Your task to perform on an android device: Go to eBay Image 0: 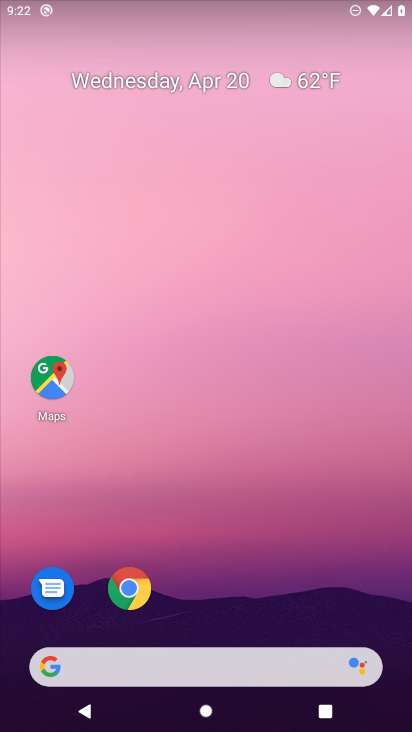
Step 0: drag from (220, 614) to (233, 25)
Your task to perform on an android device: Go to eBay Image 1: 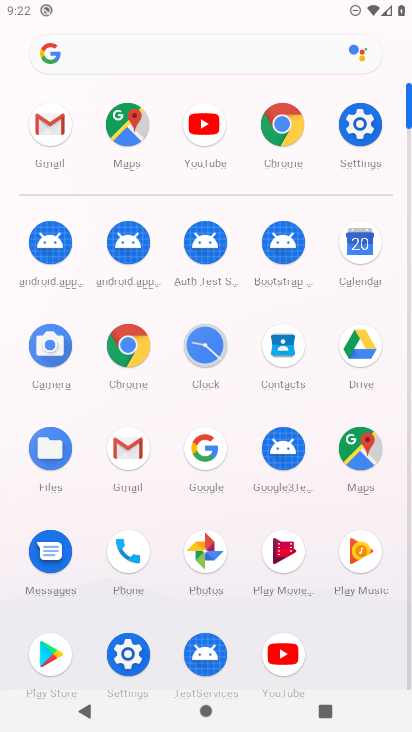
Step 1: click (280, 119)
Your task to perform on an android device: Go to eBay Image 2: 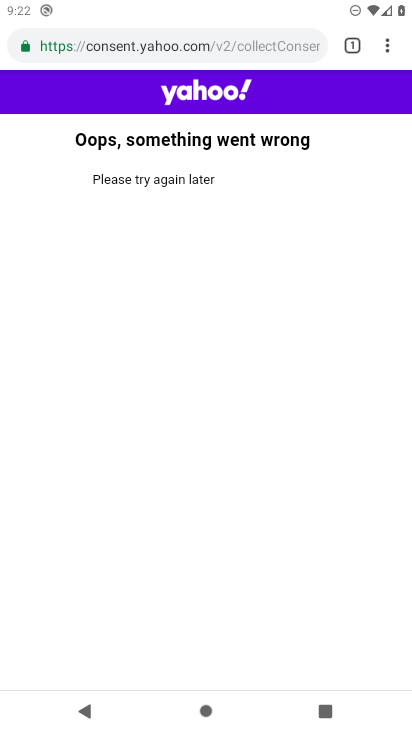
Step 2: click (351, 39)
Your task to perform on an android device: Go to eBay Image 3: 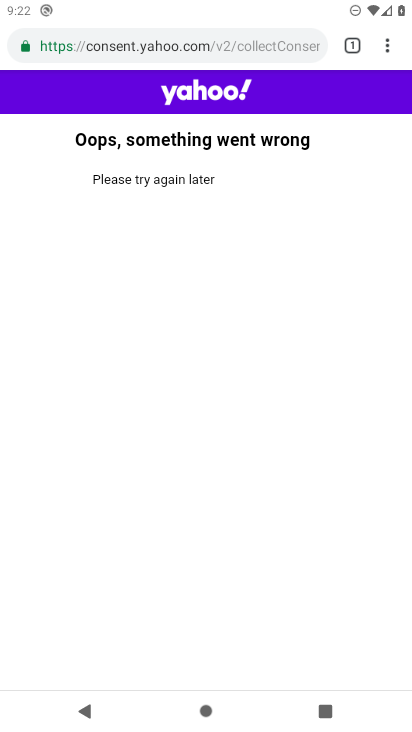
Step 3: click (349, 43)
Your task to perform on an android device: Go to eBay Image 4: 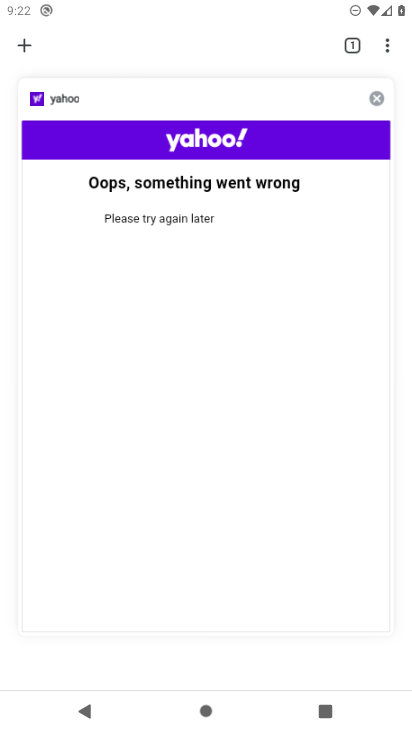
Step 4: click (28, 41)
Your task to perform on an android device: Go to eBay Image 5: 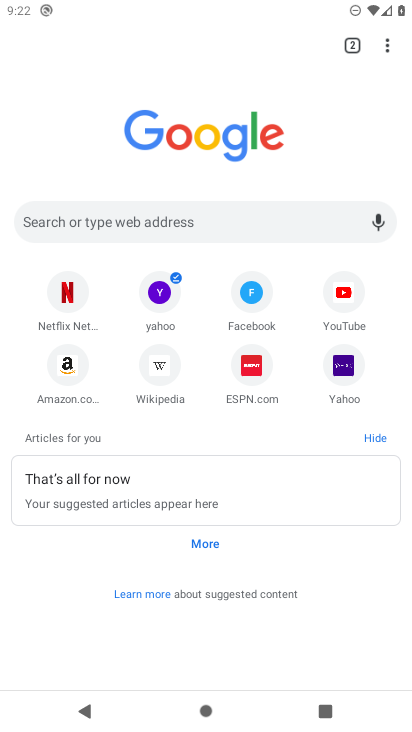
Step 5: click (142, 208)
Your task to perform on an android device: Go to eBay Image 6: 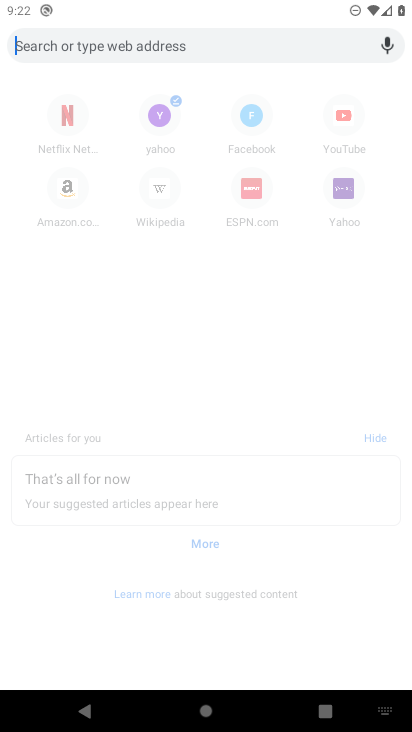
Step 6: type "ebay"
Your task to perform on an android device: Go to eBay Image 7: 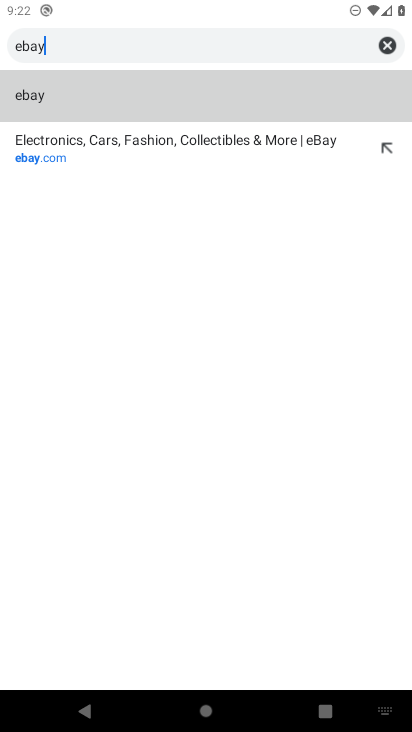
Step 7: click (89, 143)
Your task to perform on an android device: Go to eBay Image 8: 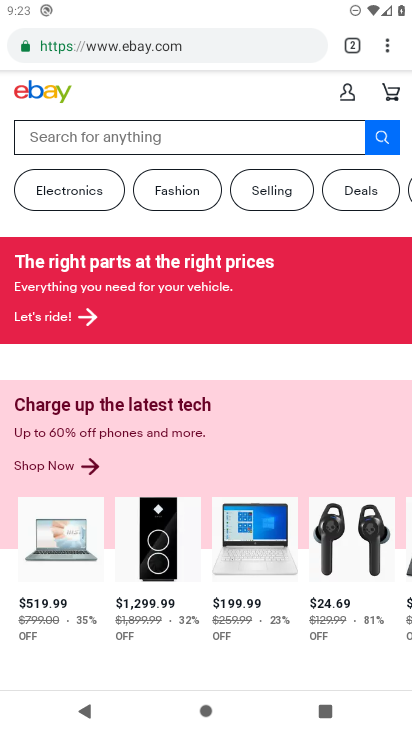
Step 8: task complete